Your task to perform on an android device: change notifications settings Image 0: 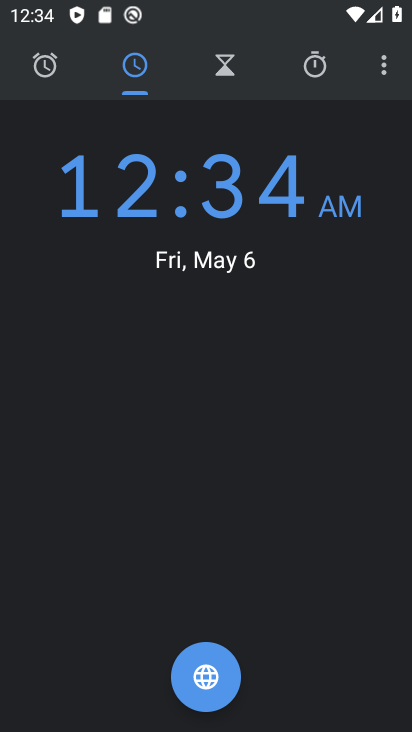
Step 0: press home button
Your task to perform on an android device: change notifications settings Image 1: 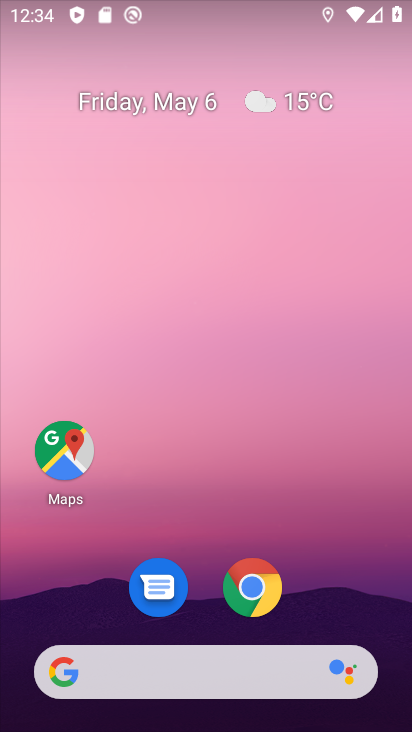
Step 1: drag from (359, 383) to (286, 10)
Your task to perform on an android device: change notifications settings Image 2: 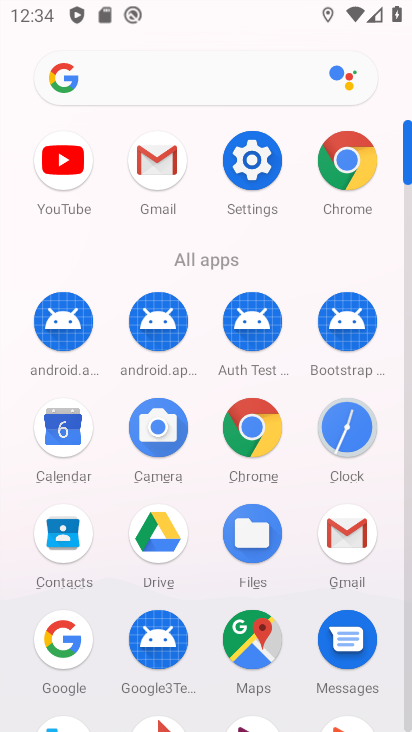
Step 2: click (256, 157)
Your task to perform on an android device: change notifications settings Image 3: 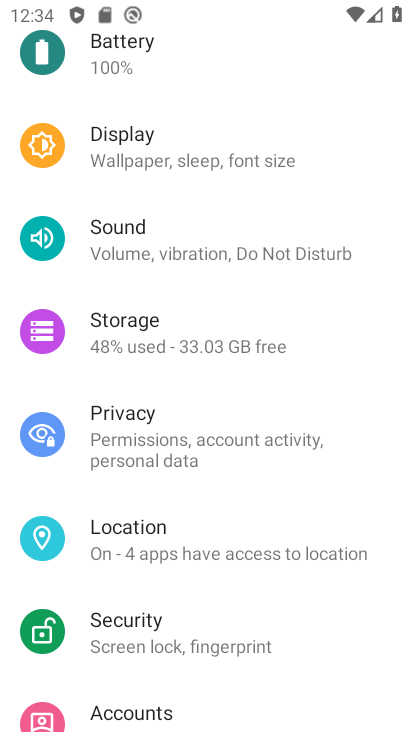
Step 3: drag from (261, 144) to (198, 690)
Your task to perform on an android device: change notifications settings Image 4: 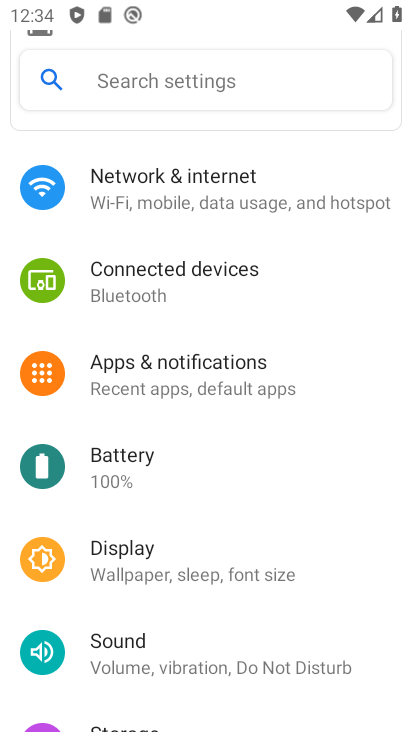
Step 4: click (179, 378)
Your task to perform on an android device: change notifications settings Image 5: 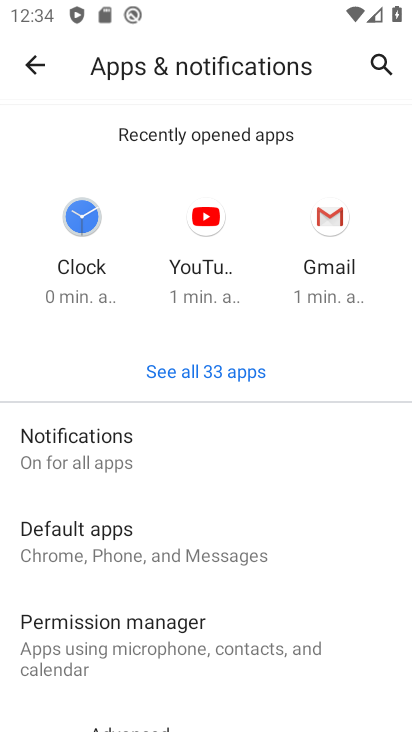
Step 5: click (193, 424)
Your task to perform on an android device: change notifications settings Image 6: 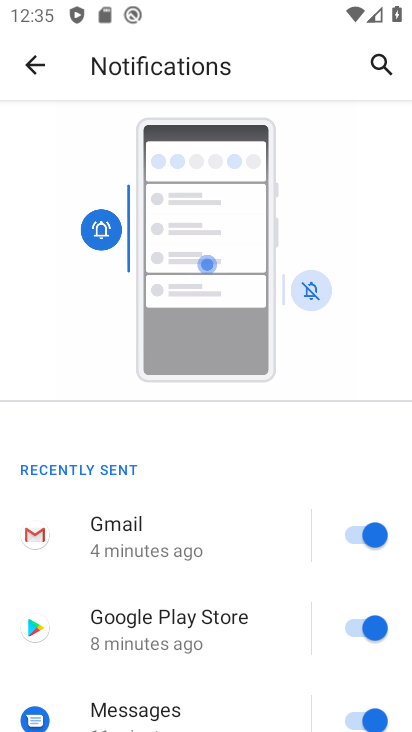
Step 6: click (369, 533)
Your task to perform on an android device: change notifications settings Image 7: 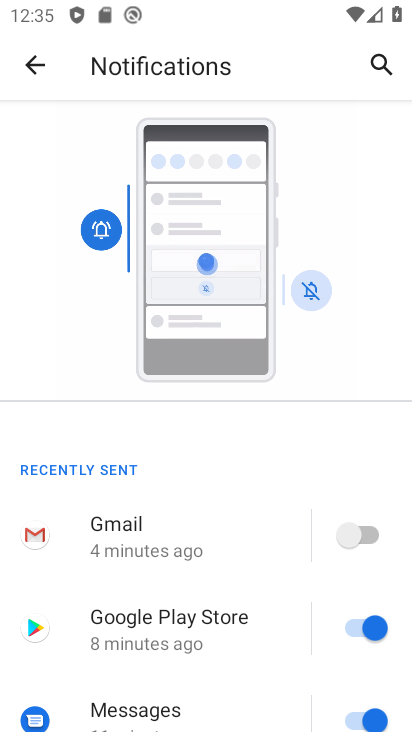
Step 7: click (364, 624)
Your task to perform on an android device: change notifications settings Image 8: 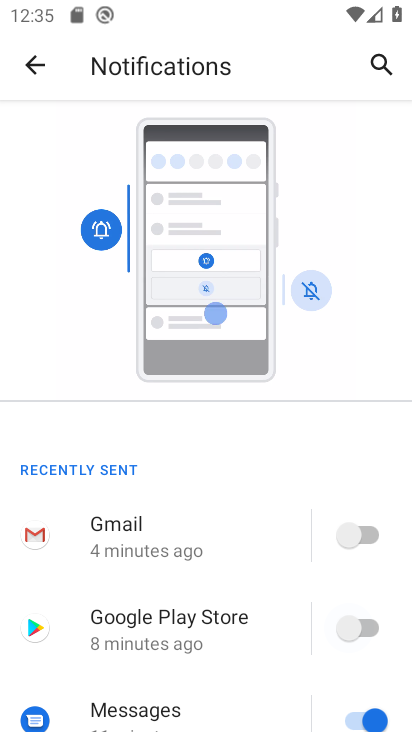
Step 8: click (372, 719)
Your task to perform on an android device: change notifications settings Image 9: 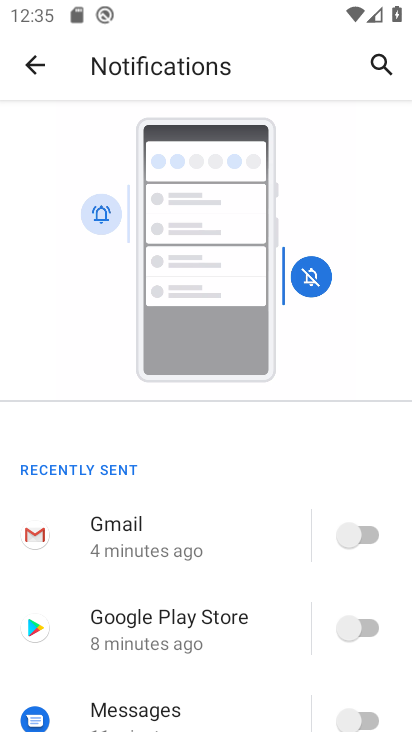
Step 9: task complete